Your task to perform on an android device: Search for "logitech g502" on bestbuy, select the first entry, add it to the cart, then select checkout. Image 0: 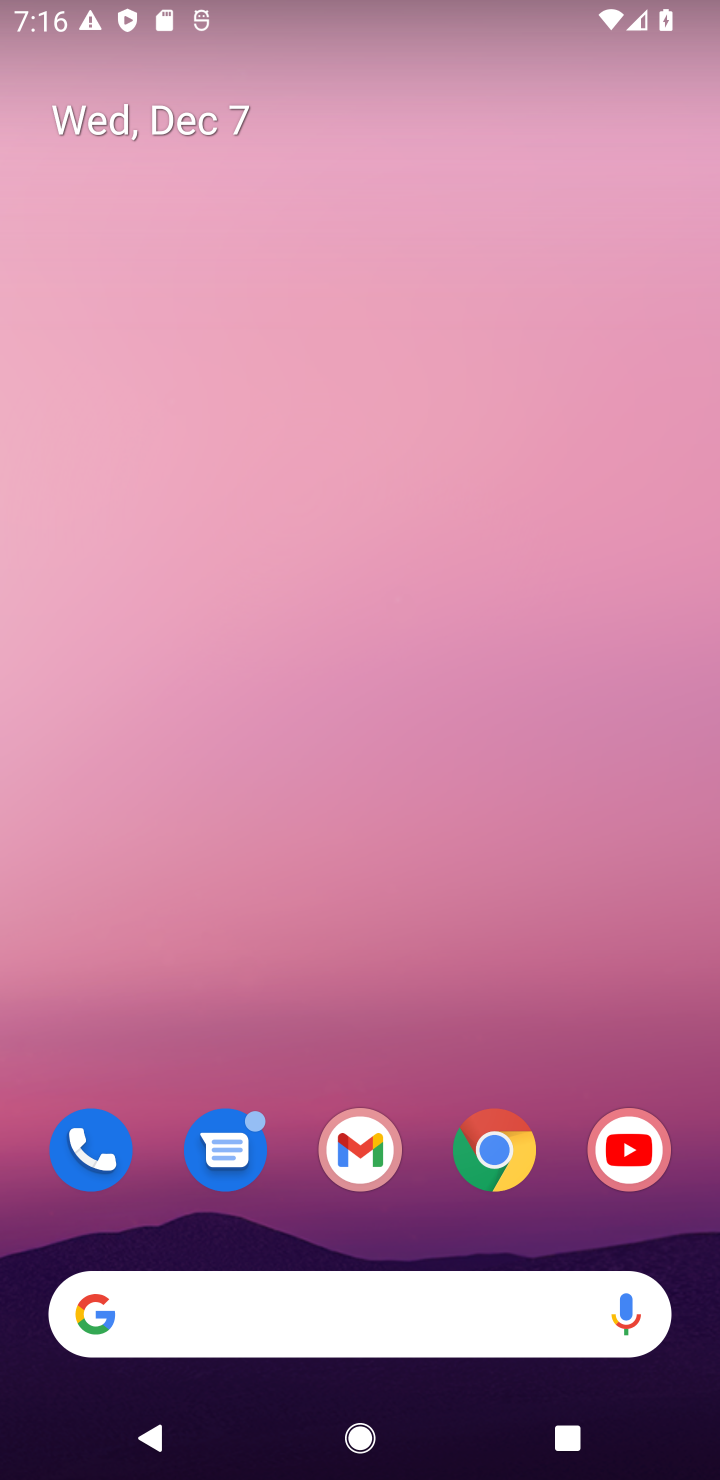
Step 0: click (499, 1144)
Your task to perform on an android device: Search for "logitech g502" on bestbuy, select the first entry, add it to the cart, then select checkout. Image 1: 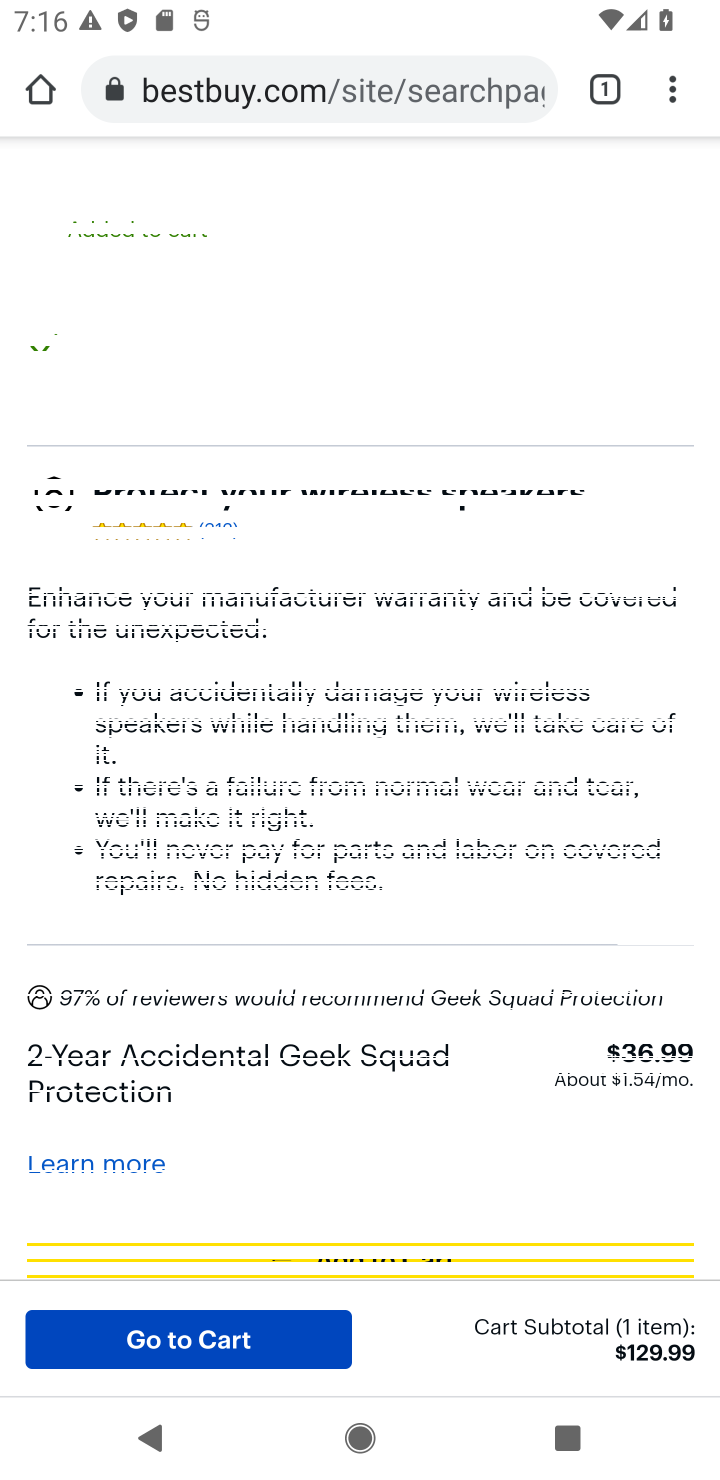
Step 1: click (109, 160)
Your task to perform on an android device: Search for "logitech g502" on bestbuy, select the first entry, add it to the cart, then select checkout. Image 2: 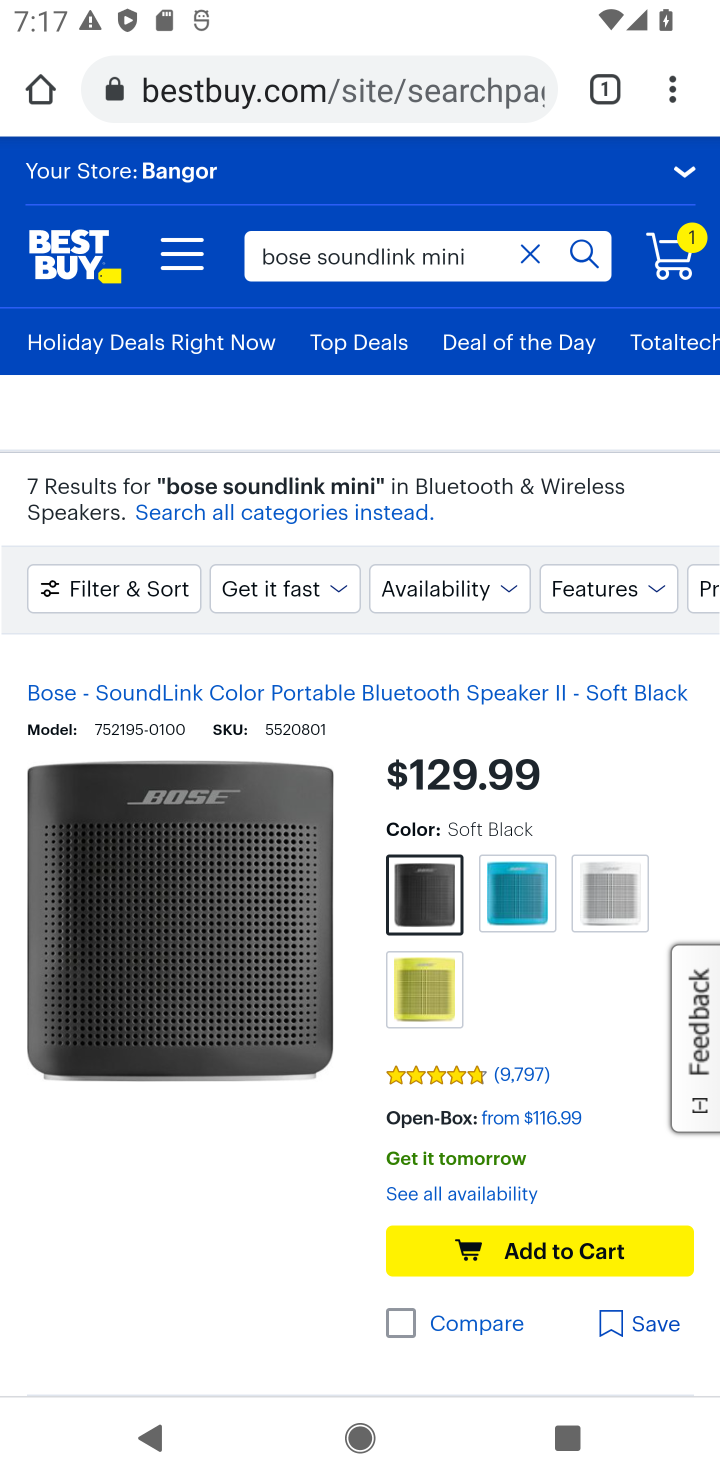
Step 2: click (528, 253)
Your task to perform on an android device: Search for "logitech g502" on bestbuy, select the first entry, add it to the cart, then select checkout. Image 3: 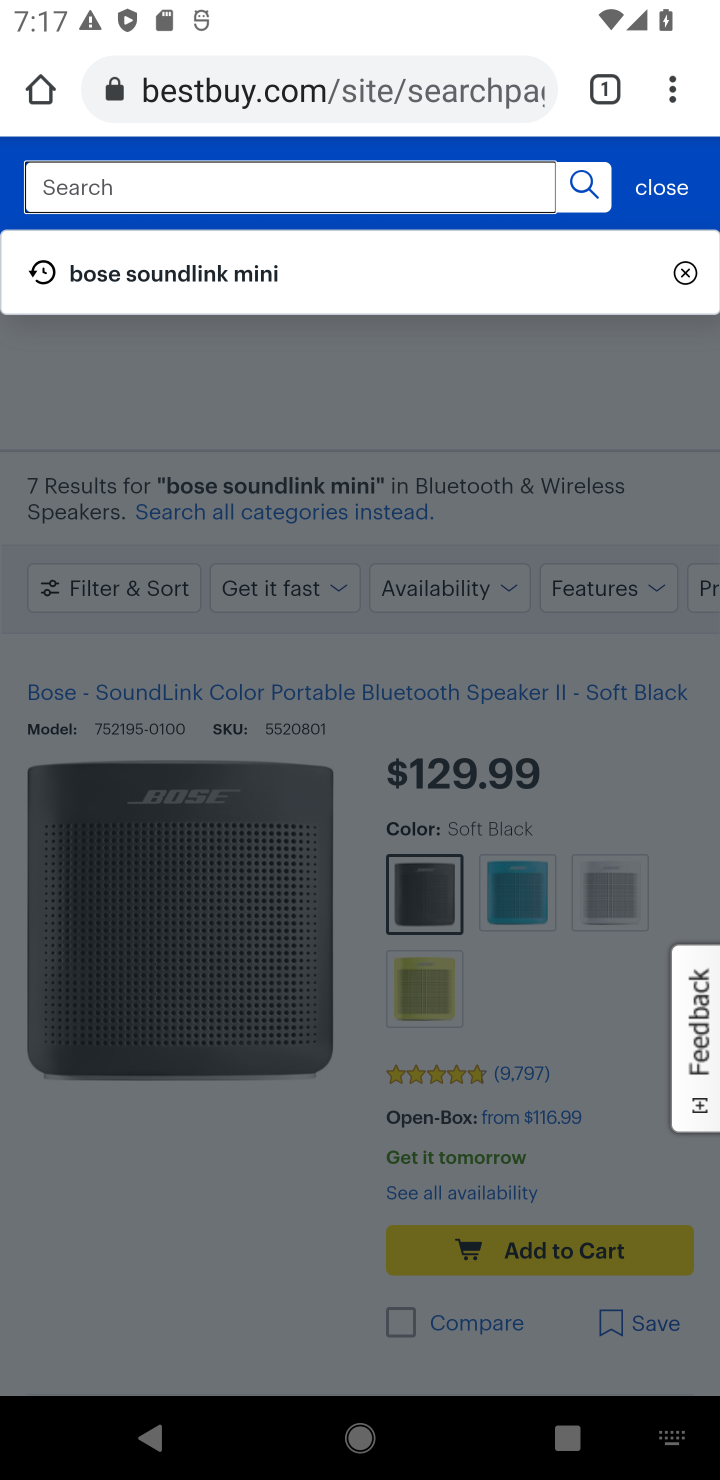
Step 3: type "logitech g502"
Your task to perform on an android device: Search for "logitech g502" on bestbuy, select the first entry, add it to the cart, then select checkout. Image 4: 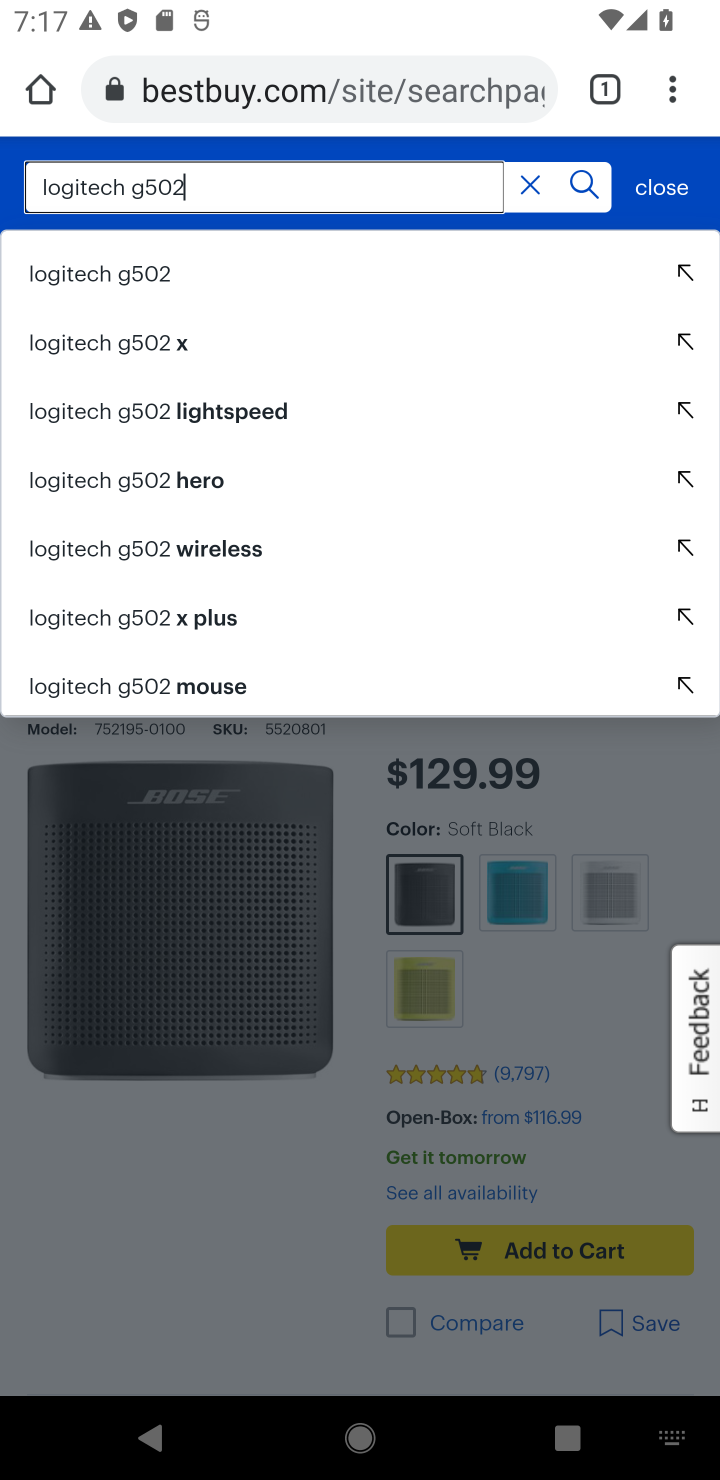
Step 4: click (173, 274)
Your task to perform on an android device: Search for "logitech g502" on bestbuy, select the first entry, add it to the cart, then select checkout. Image 5: 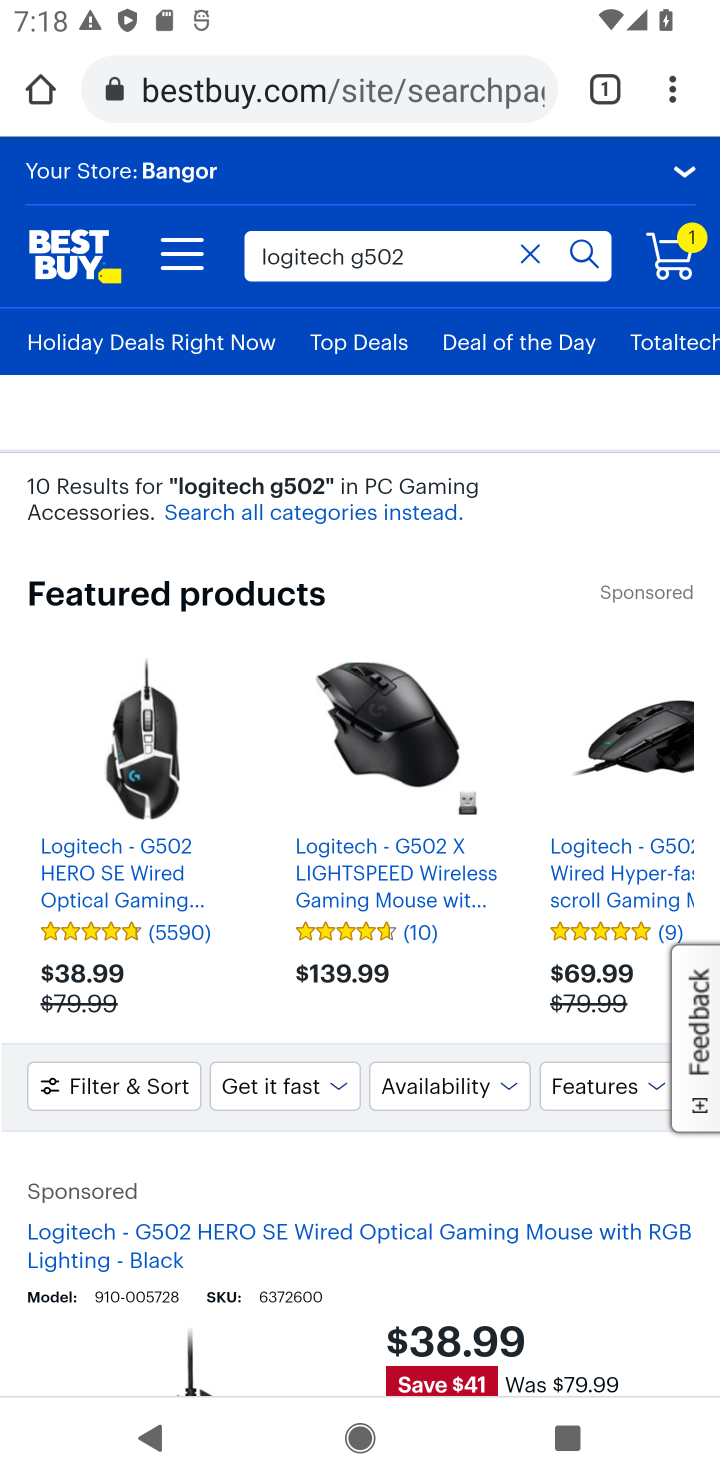
Step 5: click (173, 274)
Your task to perform on an android device: Search for "logitech g502" on bestbuy, select the first entry, add it to the cart, then select checkout. Image 6: 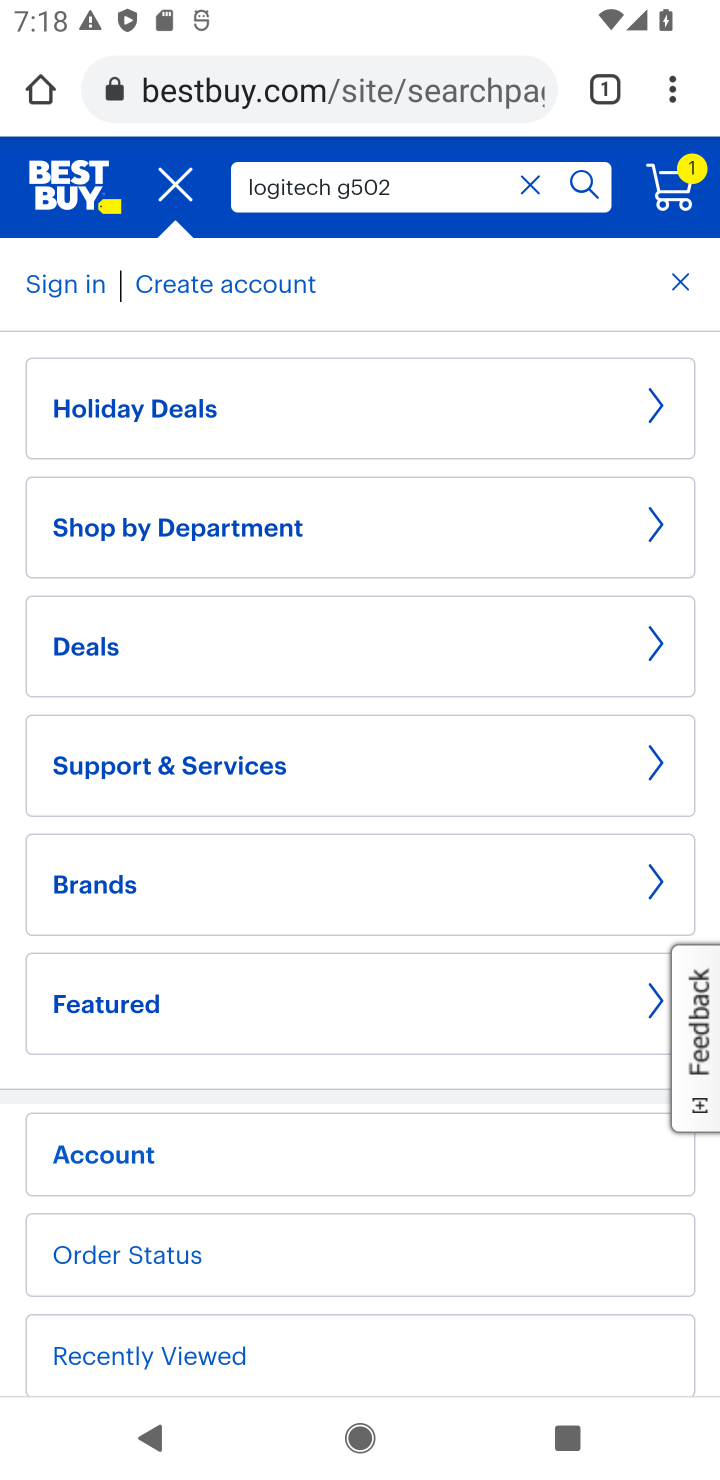
Step 6: click (584, 186)
Your task to perform on an android device: Search for "logitech g502" on bestbuy, select the first entry, add it to the cart, then select checkout. Image 7: 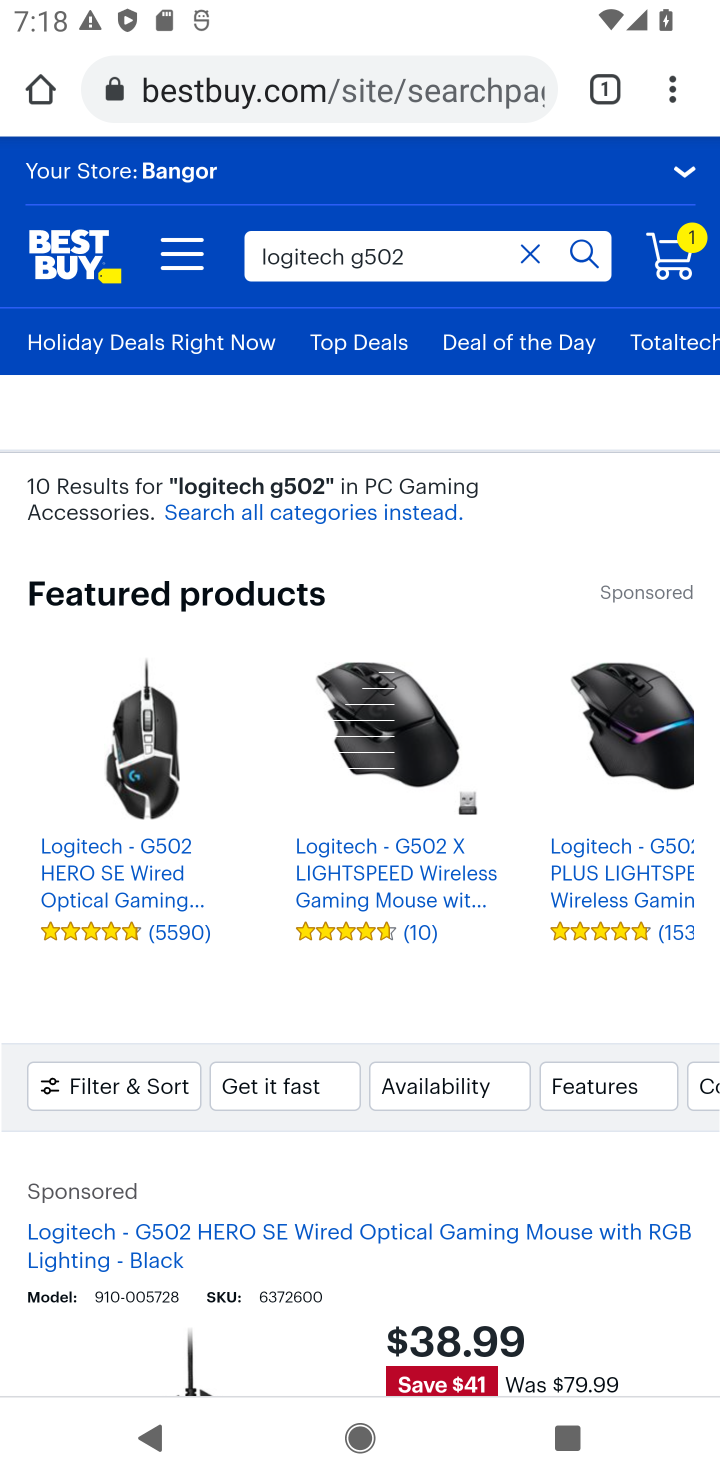
Step 7: drag from (327, 1347) to (375, 513)
Your task to perform on an android device: Search for "logitech g502" on bestbuy, select the first entry, add it to the cart, then select checkout. Image 8: 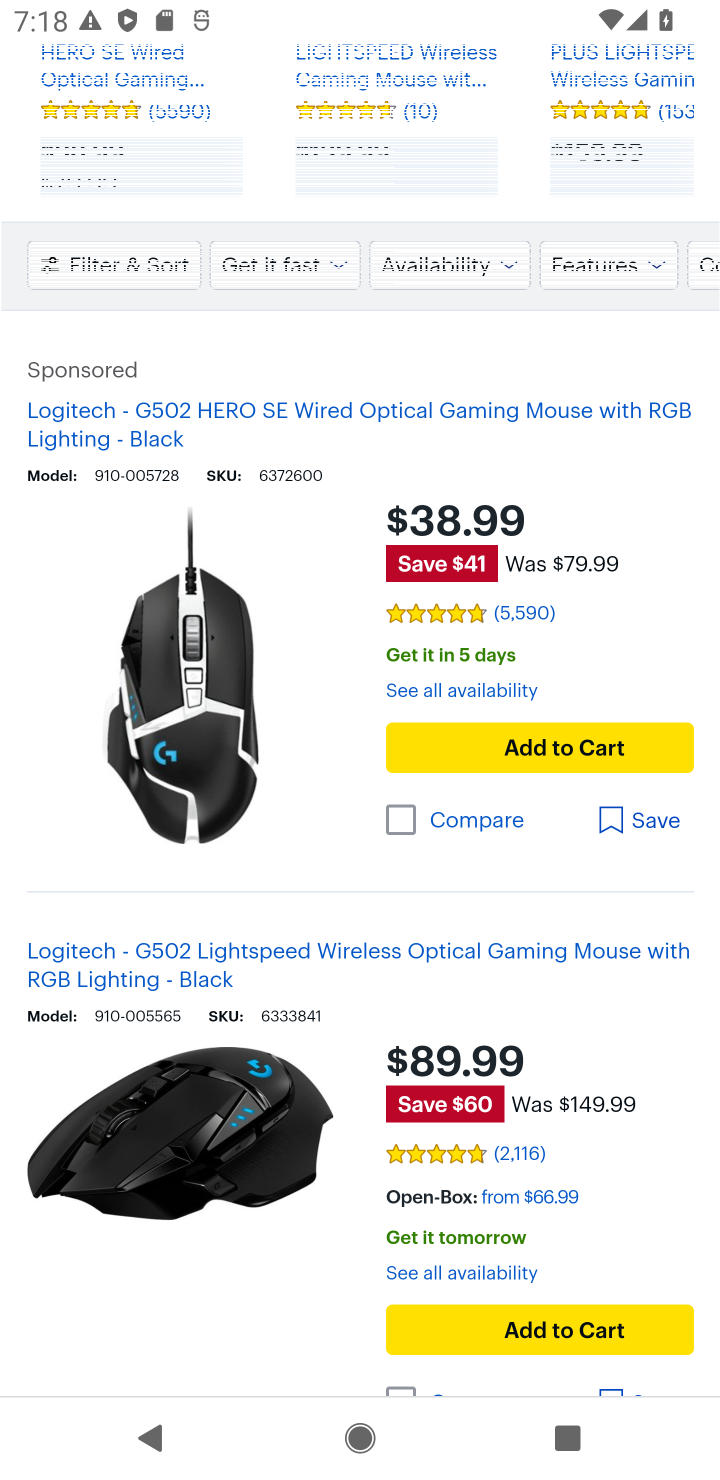
Step 8: click (552, 749)
Your task to perform on an android device: Search for "logitech g502" on bestbuy, select the first entry, add it to the cart, then select checkout. Image 9: 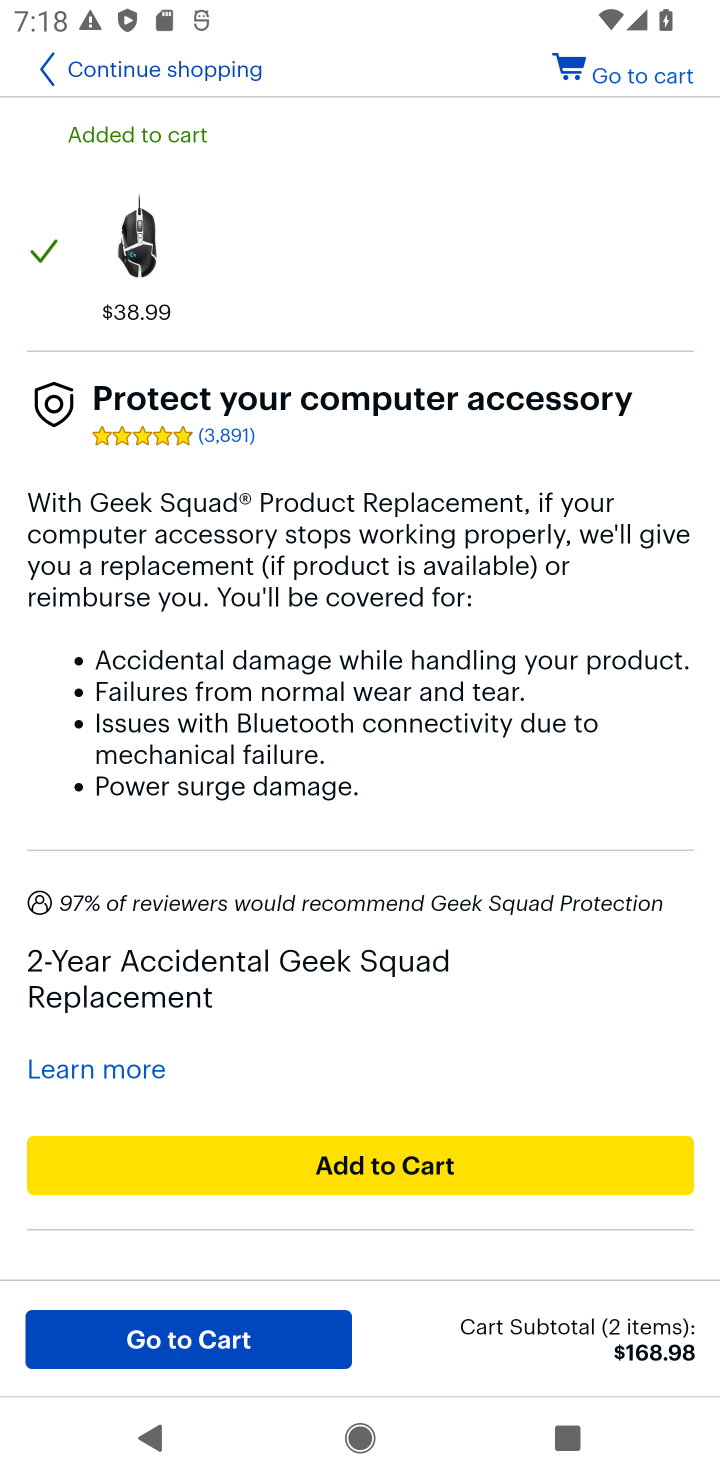
Step 9: click (207, 1341)
Your task to perform on an android device: Search for "logitech g502" on bestbuy, select the first entry, add it to the cart, then select checkout. Image 10: 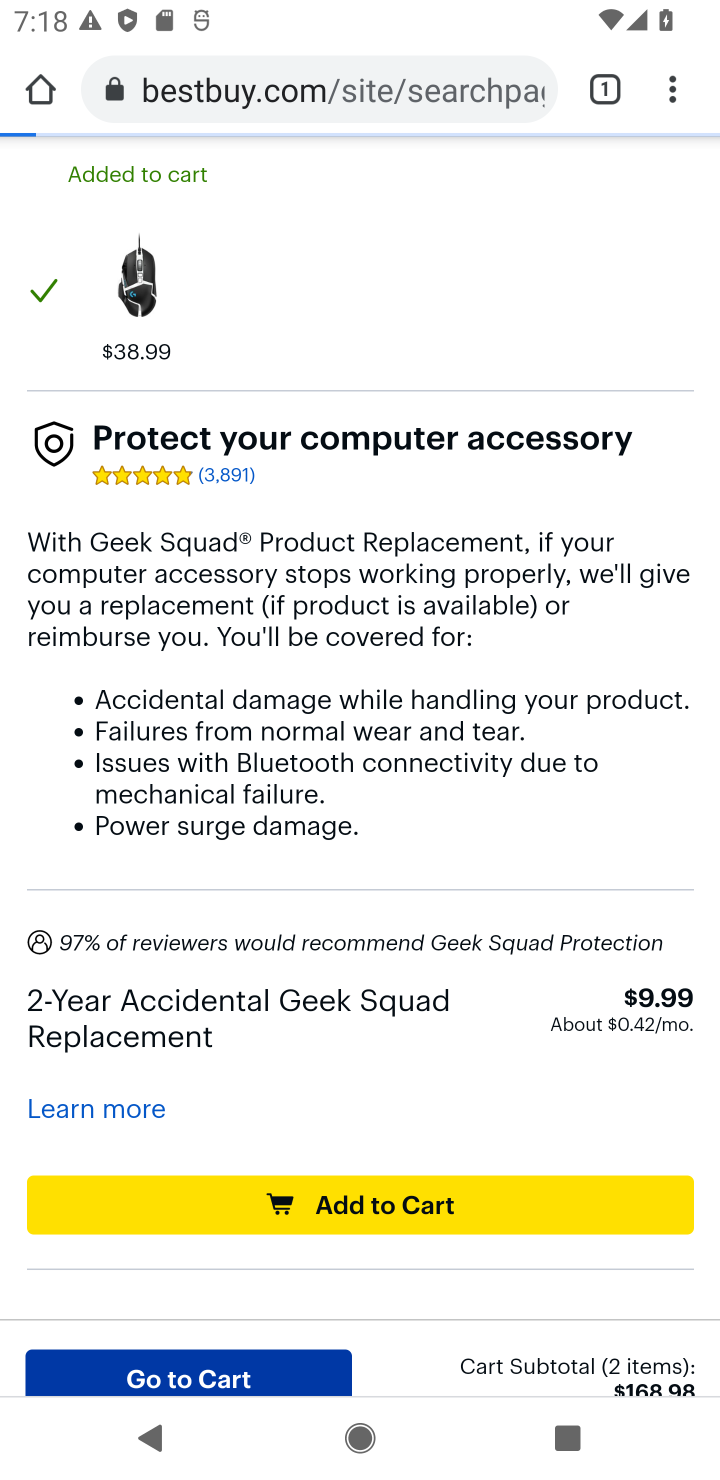
Step 10: task complete